Your task to perform on an android device: turn pop-ups on in chrome Image 0: 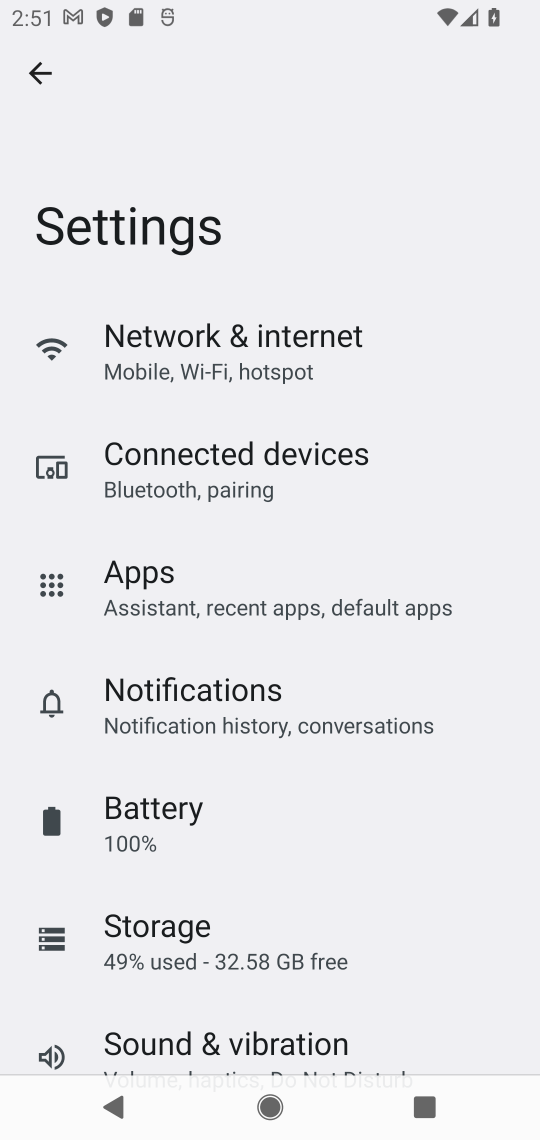
Step 0: press home button
Your task to perform on an android device: turn pop-ups on in chrome Image 1: 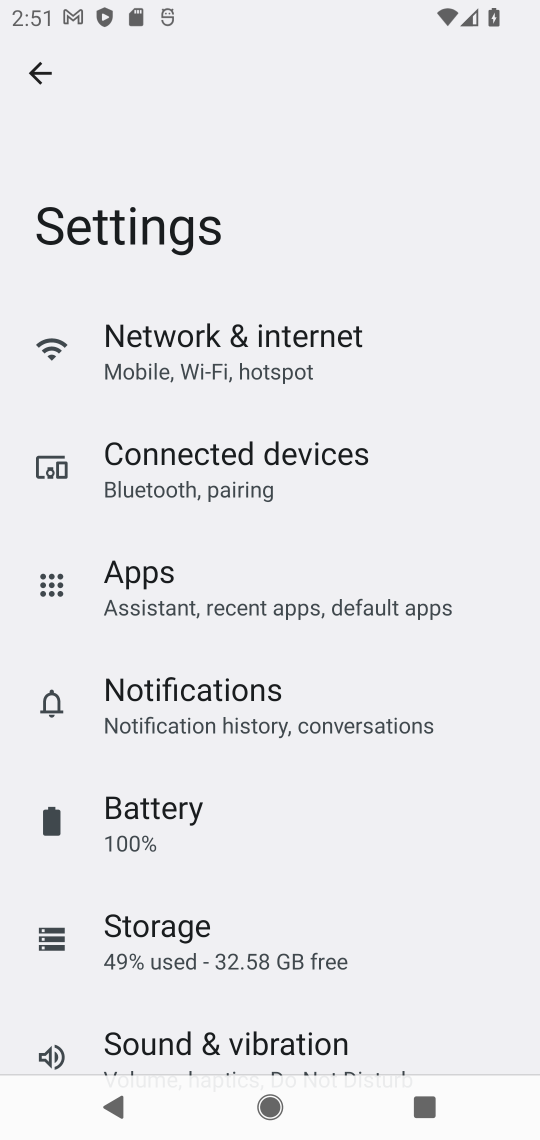
Step 1: press home button
Your task to perform on an android device: turn pop-ups on in chrome Image 2: 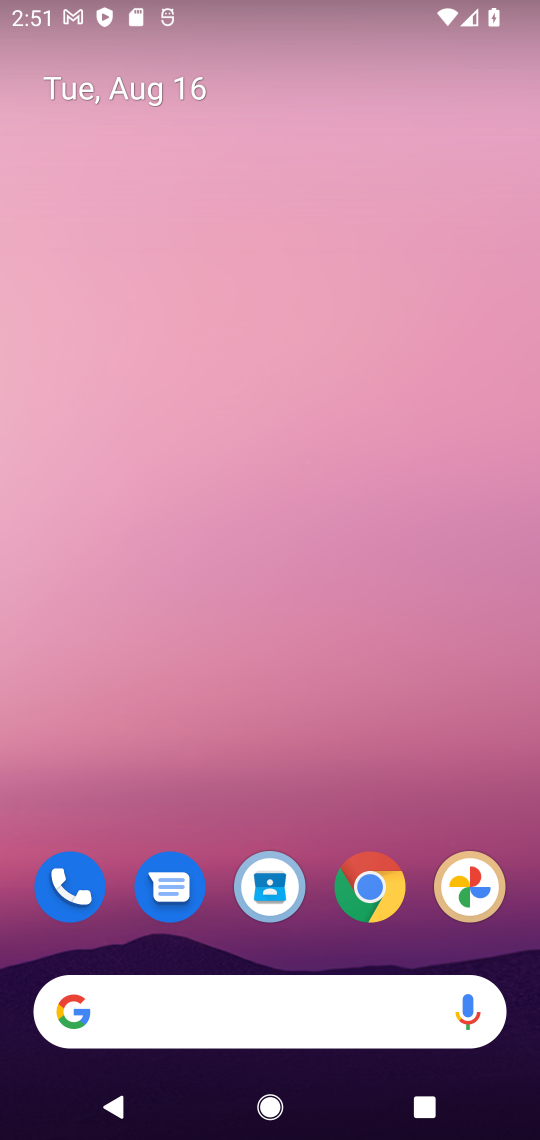
Step 2: press home button
Your task to perform on an android device: turn pop-ups on in chrome Image 3: 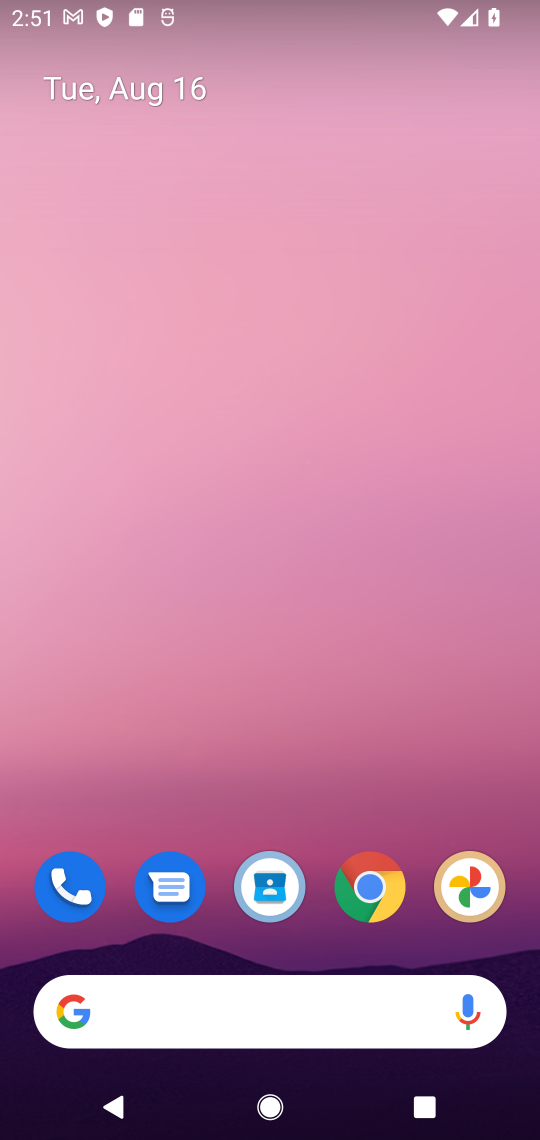
Step 3: drag from (312, 827) to (324, 0)
Your task to perform on an android device: turn pop-ups on in chrome Image 4: 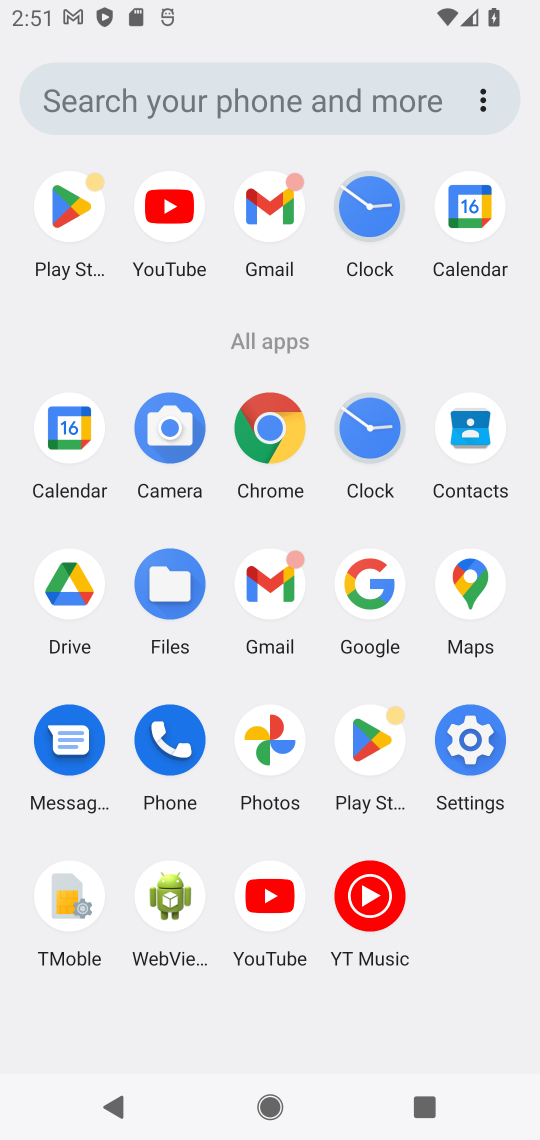
Step 4: click (265, 442)
Your task to perform on an android device: turn pop-ups on in chrome Image 5: 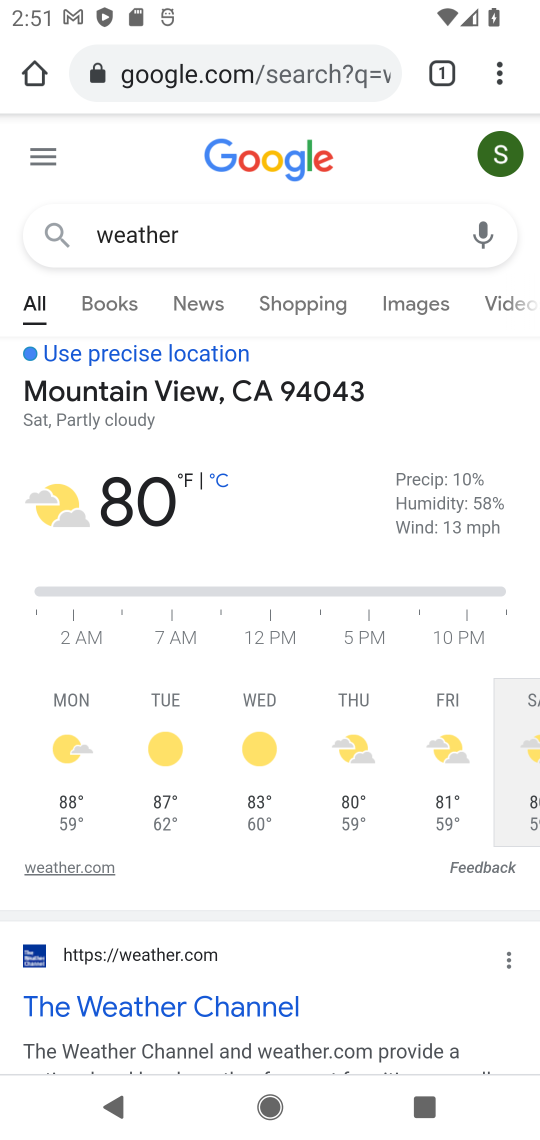
Step 5: drag from (485, 65) to (310, 949)
Your task to perform on an android device: turn pop-ups on in chrome Image 6: 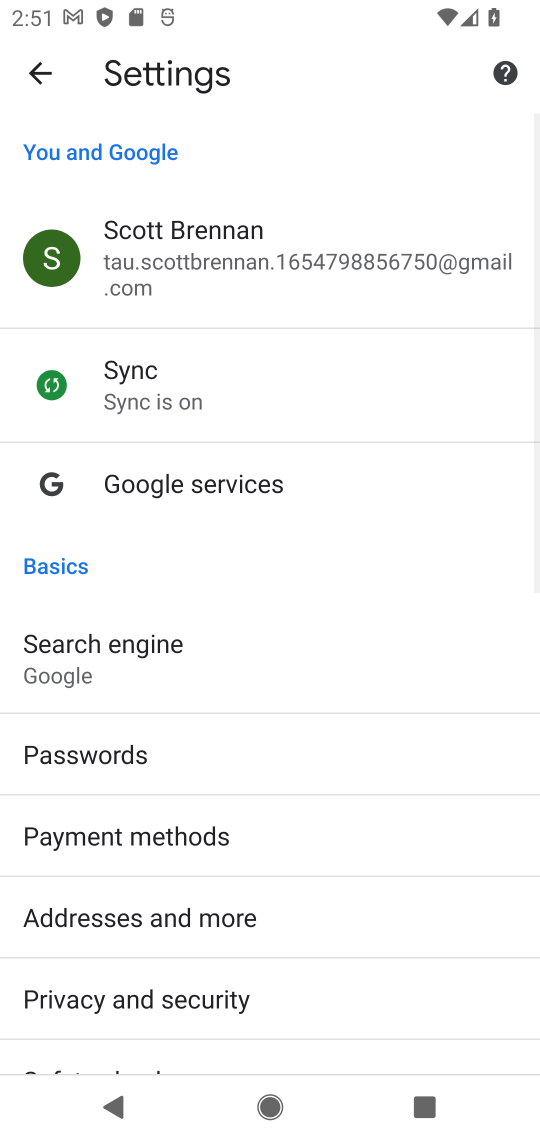
Step 6: drag from (312, 925) to (357, 192)
Your task to perform on an android device: turn pop-ups on in chrome Image 7: 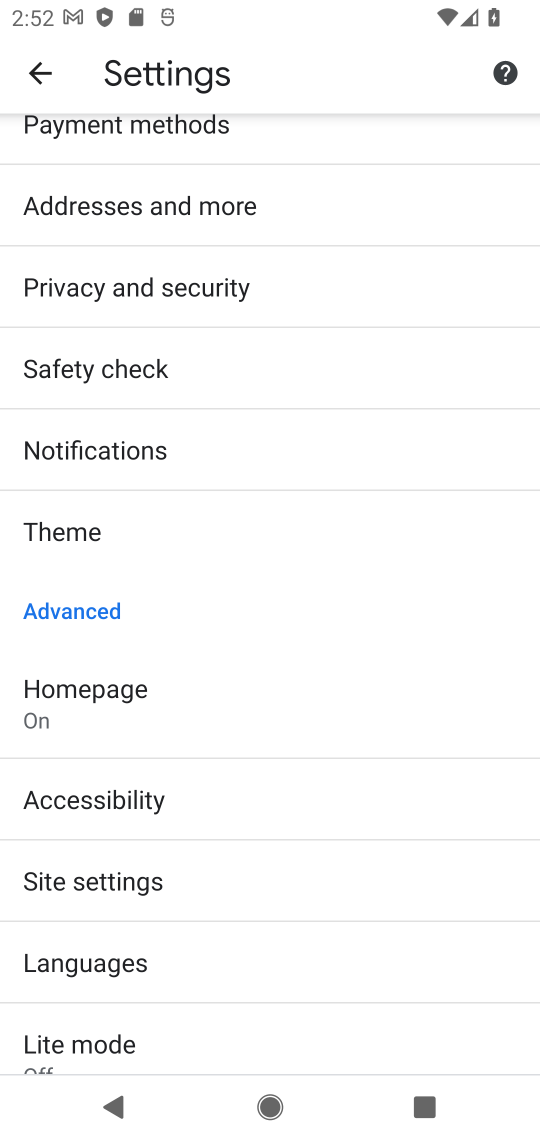
Step 7: click (125, 882)
Your task to perform on an android device: turn pop-ups on in chrome Image 8: 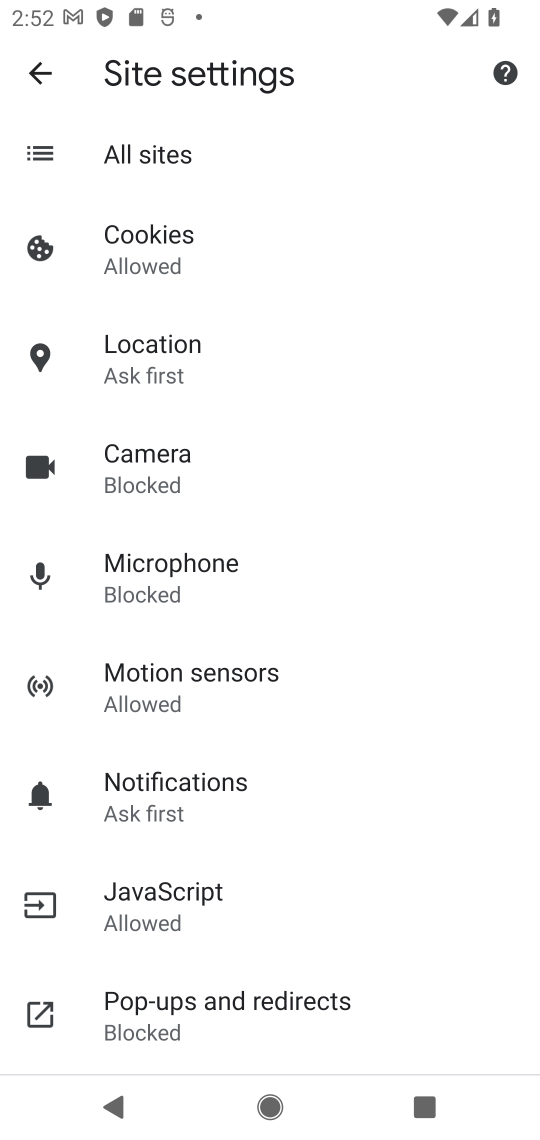
Step 8: click (201, 999)
Your task to perform on an android device: turn pop-ups on in chrome Image 9: 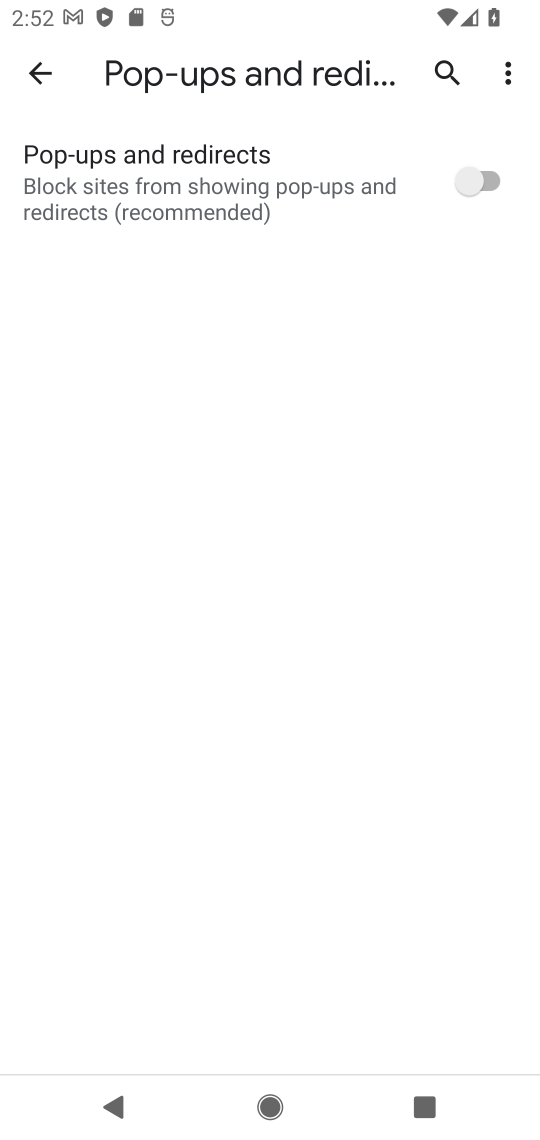
Step 9: click (440, 193)
Your task to perform on an android device: turn pop-ups on in chrome Image 10: 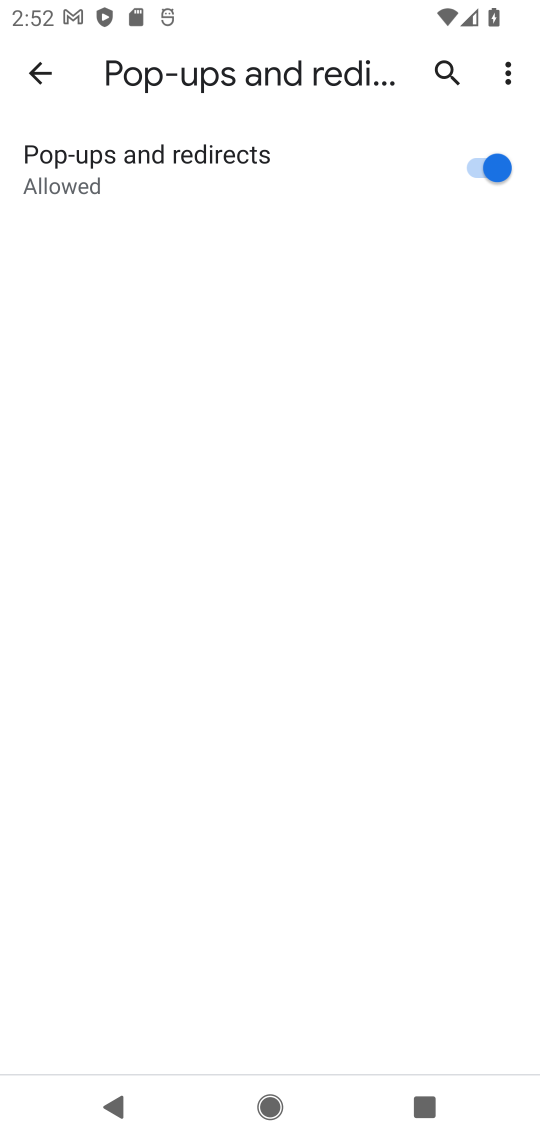
Step 10: task complete